Your task to perform on an android device: open sync settings in chrome Image 0: 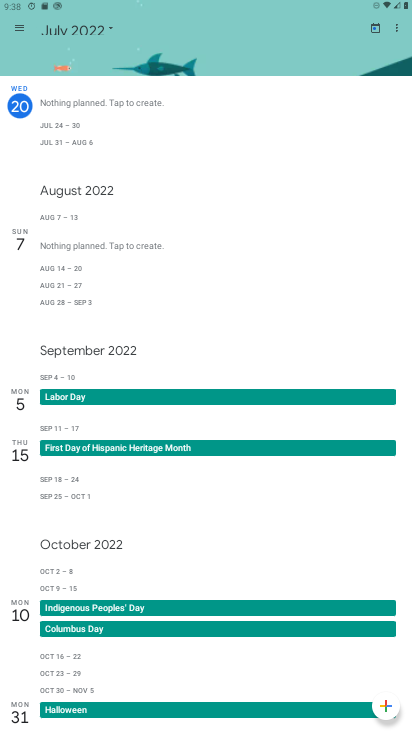
Step 0: press home button
Your task to perform on an android device: open sync settings in chrome Image 1: 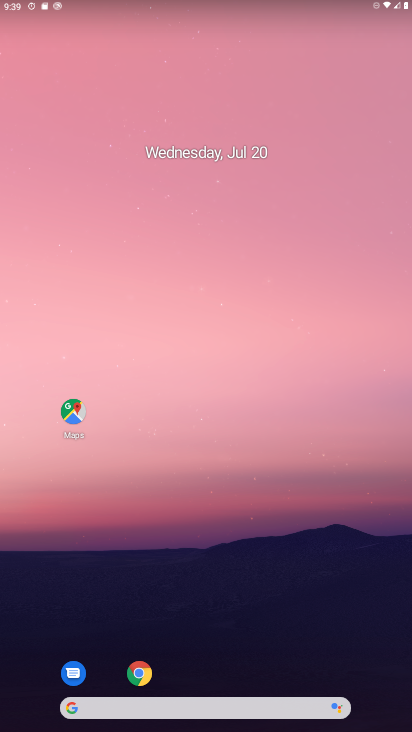
Step 1: drag from (356, 681) to (173, 1)
Your task to perform on an android device: open sync settings in chrome Image 2: 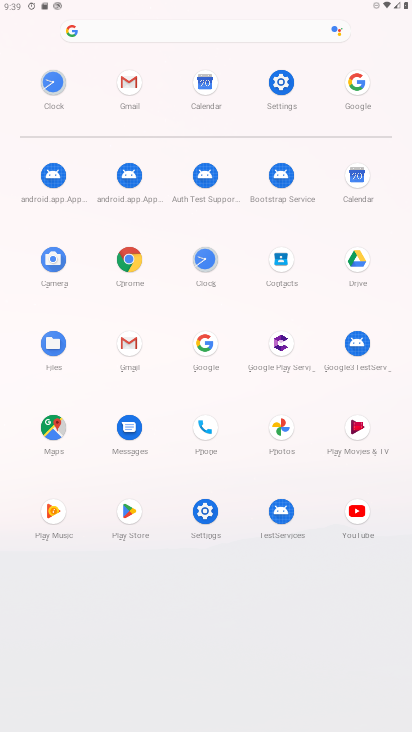
Step 2: click (139, 256)
Your task to perform on an android device: open sync settings in chrome Image 3: 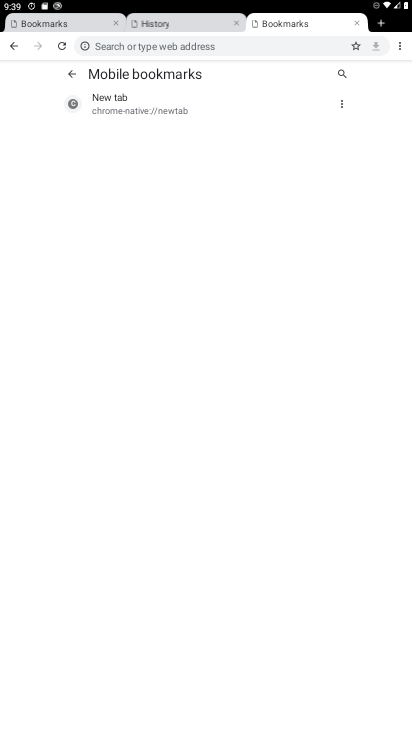
Step 3: click (403, 44)
Your task to perform on an android device: open sync settings in chrome Image 4: 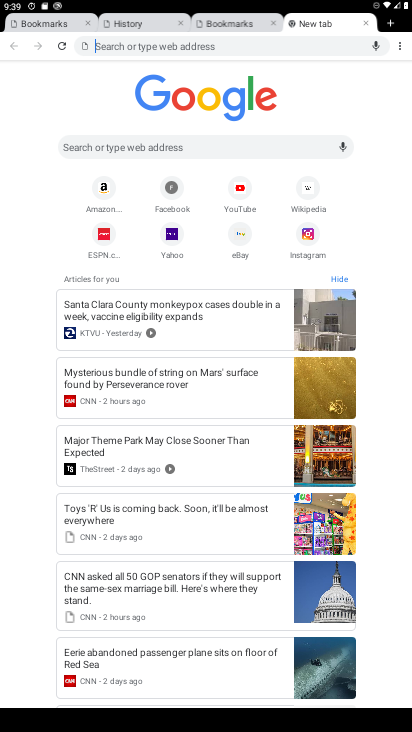
Step 4: click (400, 44)
Your task to perform on an android device: open sync settings in chrome Image 5: 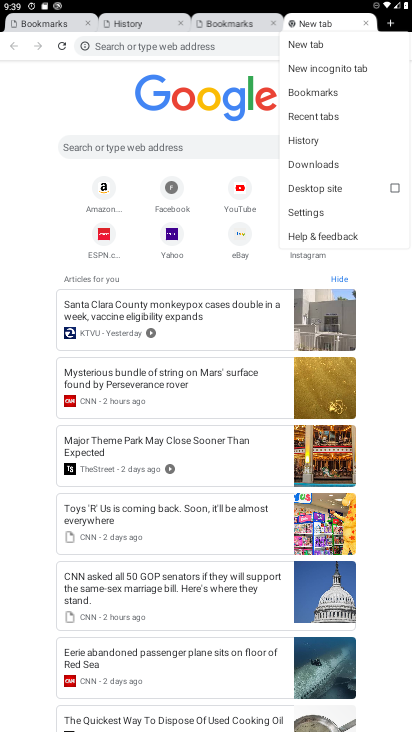
Step 5: click (308, 216)
Your task to perform on an android device: open sync settings in chrome Image 6: 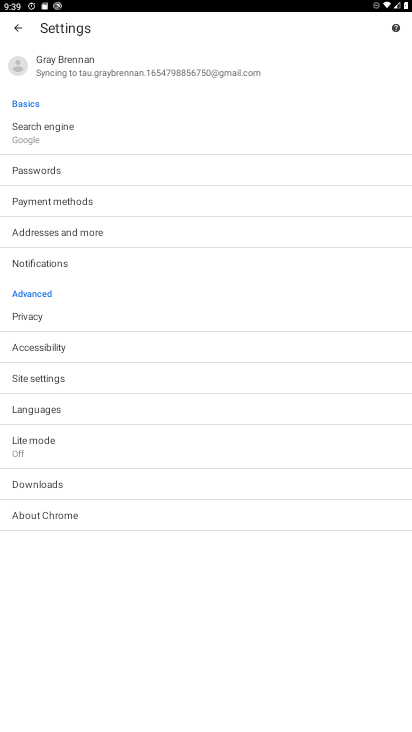
Step 6: click (49, 375)
Your task to perform on an android device: open sync settings in chrome Image 7: 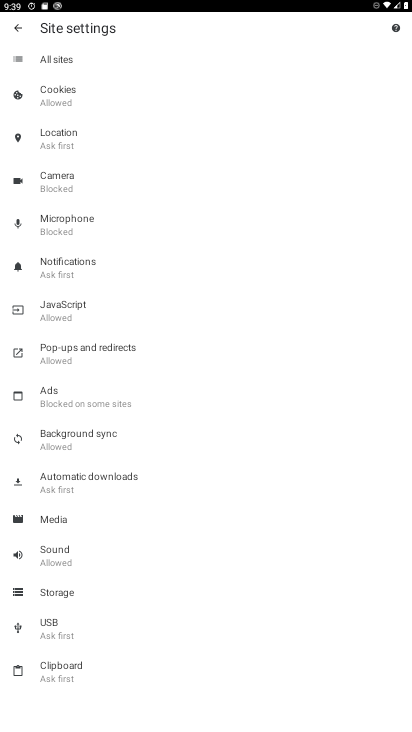
Step 7: click (67, 448)
Your task to perform on an android device: open sync settings in chrome Image 8: 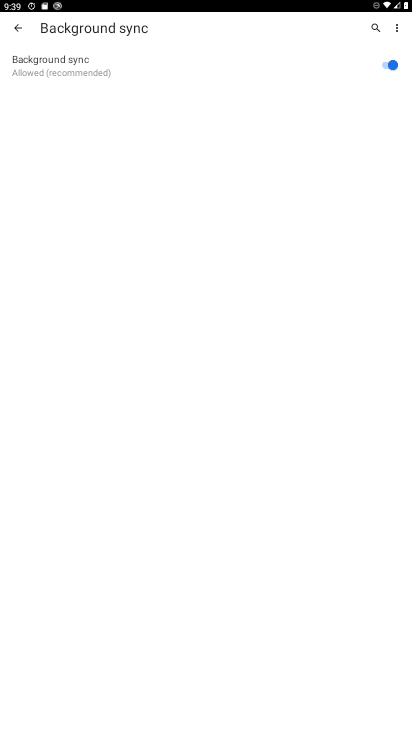
Step 8: task complete